Your task to perform on an android device: open app "LinkedIn" (install if not already installed) Image 0: 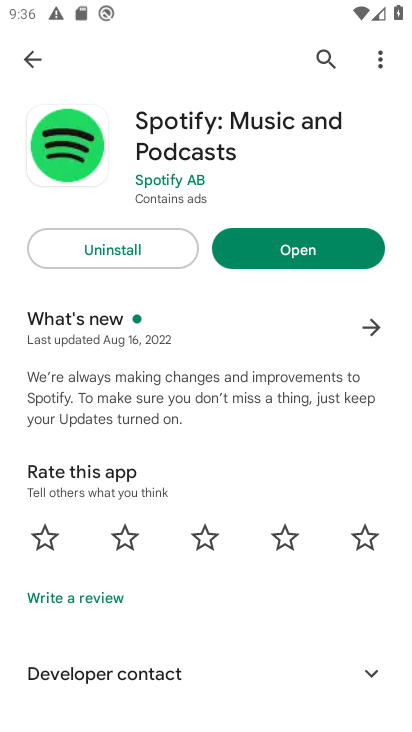
Step 0: click (319, 54)
Your task to perform on an android device: open app "LinkedIn" (install if not already installed) Image 1: 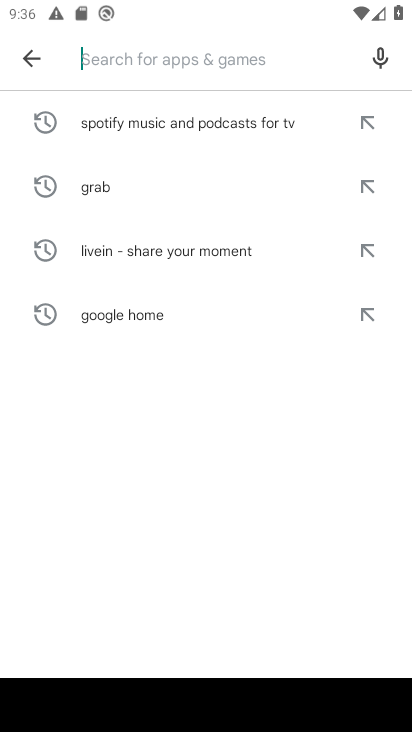
Step 1: type "LinkedIn"
Your task to perform on an android device: open app "LinkedIn" (install if not already installed) Image 2: 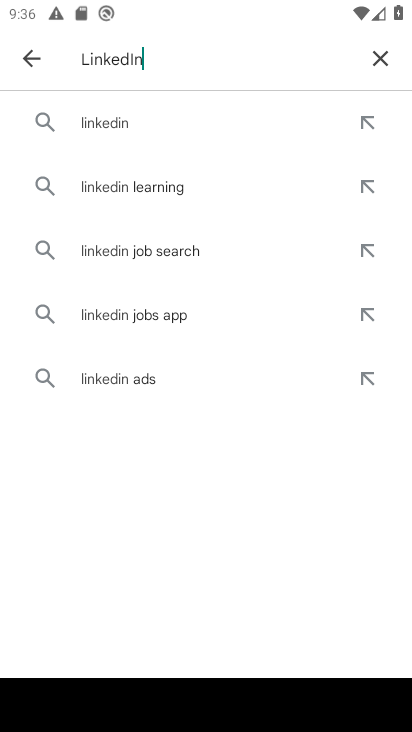
Step 2: type ""
Your task to perform on an android device: open app "LinkedIn" (install if not already installed) Image 3: 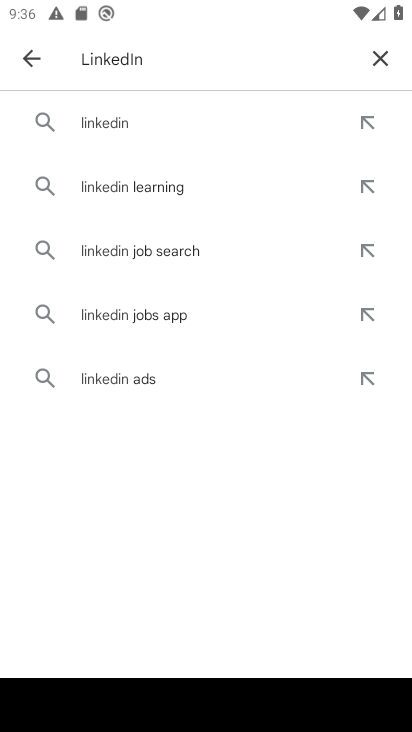
Step 3: click (145, 117)
Your task to perform on an android device: open app "LinkedIn" (install if not already installed) Image 4: 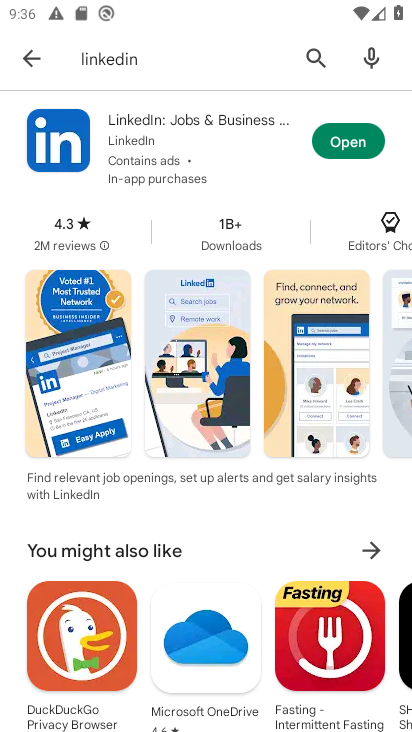
Step 4: click (348, 127)
Your task to perform on an android device: open app "LinkedIn" (install if not already installed) Image 5: 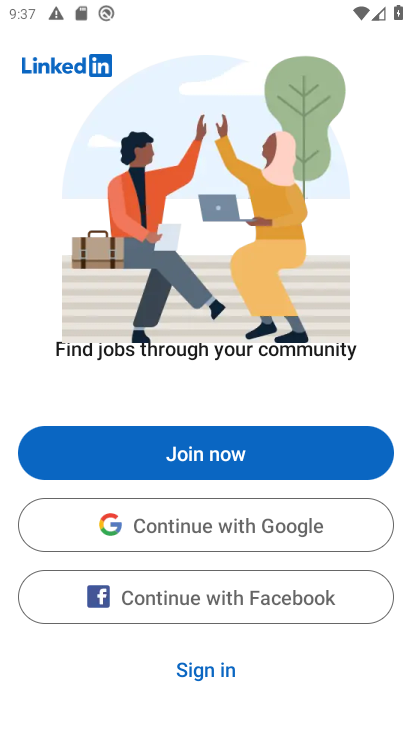
Step 5: task complete